Your task to perform on an android device: change notification settings in the gmail app Image 0: 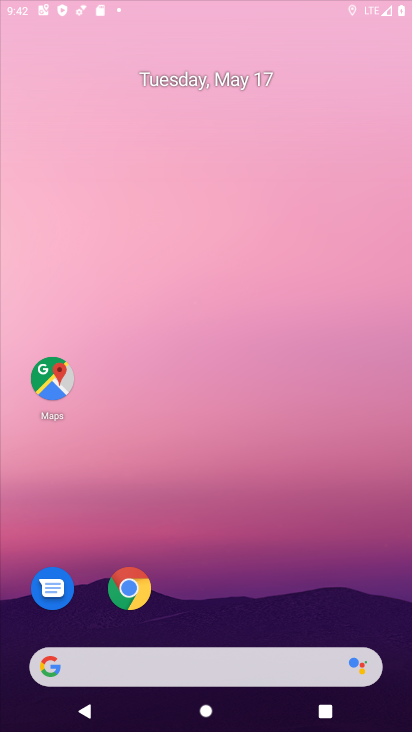
Step 0: drag from (215, 642) to (160, 27)
Your task to perform on an android device: change notification settings in the gmail app Image 1: 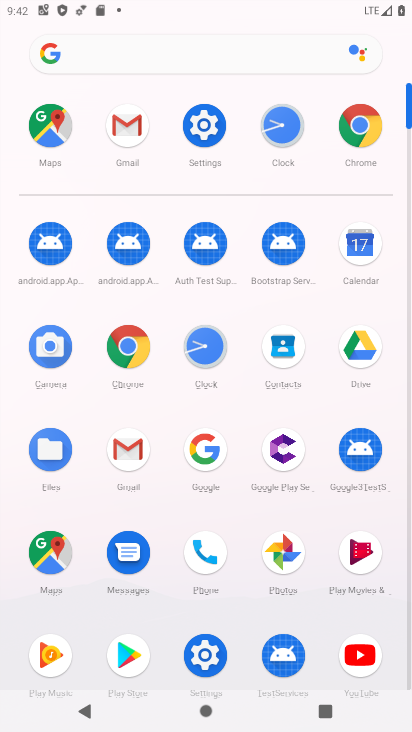
Step 1: click (291, 548)
Your task to perform on an android device: change notification settings in the gmail app Image 2: 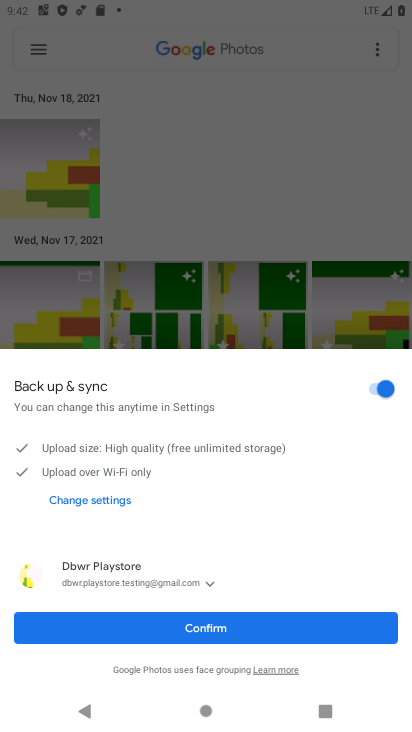
Step 2: press home button
Your task to perform on an android device: change notification settings in the gmail app Image 3: 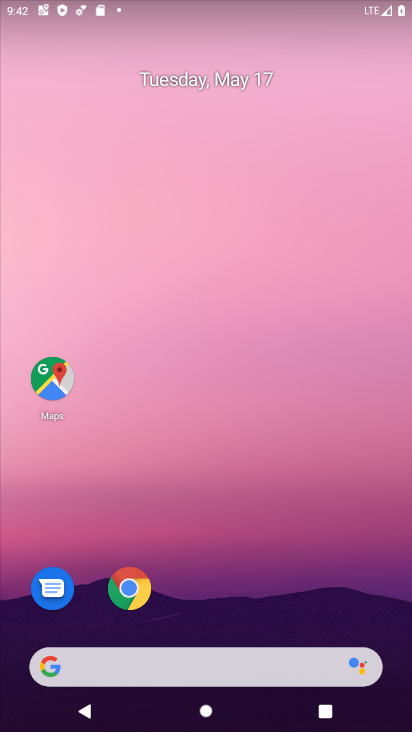
Step 3: drag from (184, 638) to (178, 140)
Your task to perform on an android device: change notification settings in the gmail app Image 4: 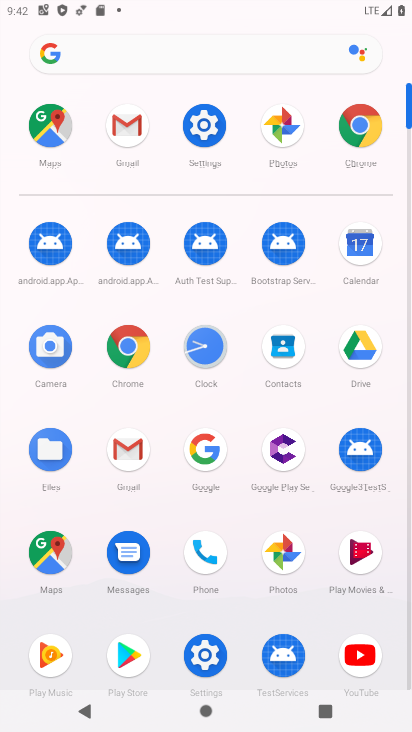
Step 4: click (110, 457)
Your task to perform on an android device: change notification settings in the gmail app Image 5: 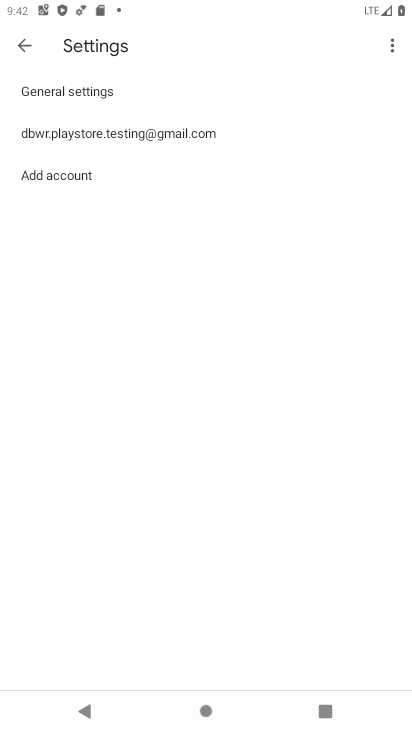
Step 5: click (60, 90)
Your task to perform on an android device: change notification settings in the gmail app Image 6: 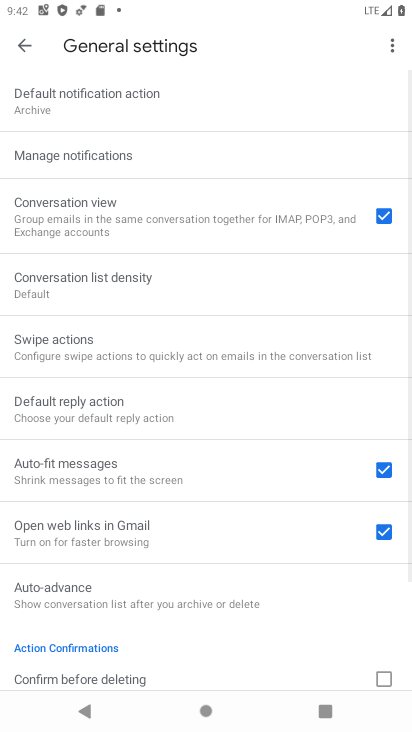
Step 6: click (118, 152)
Your task to perform on an android device: change notification settings in the gmail app Image 7: 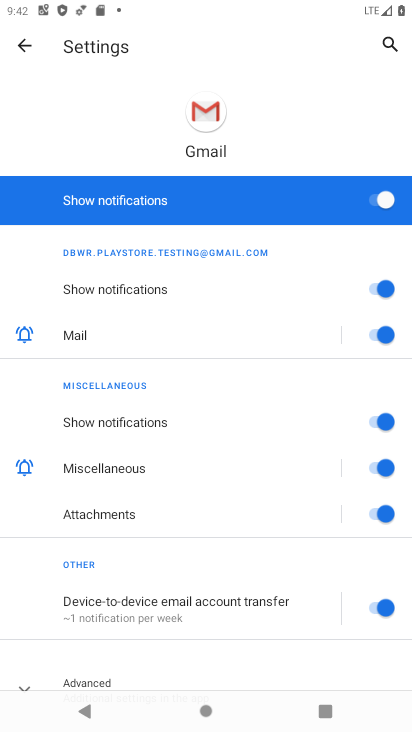
Step 7: click (381, 201)
Your task to perform on an android device: change notification settings in the gmail app Image 8: 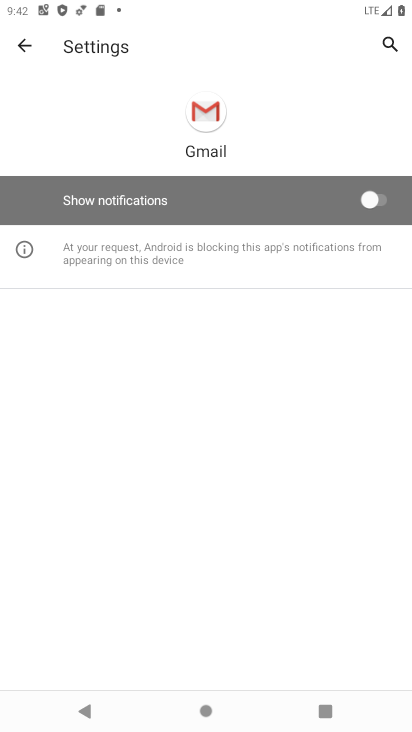
Step 8: task complete